Your task to perform on an android device: turn pop-ups off in chrome Image 0: 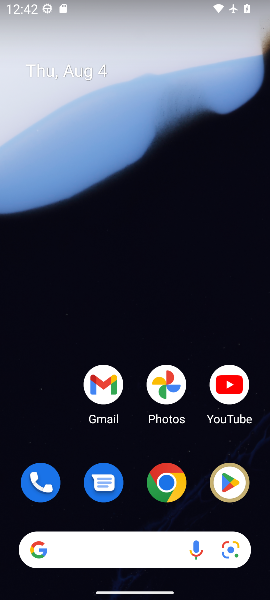
Step 0: click (158, 485)
Your task to perform on an android device: turn pop-ups off in chrome Image 1: 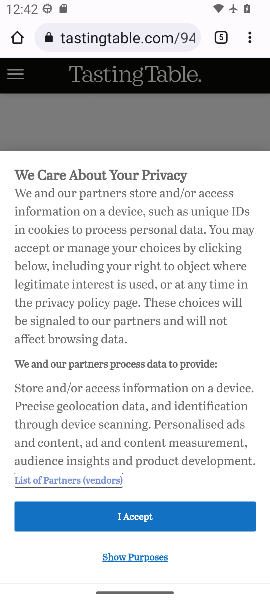
Step 1: click (244, 41)
Your task to perform on an android device: turn pop-ups off in chrome Image 2: 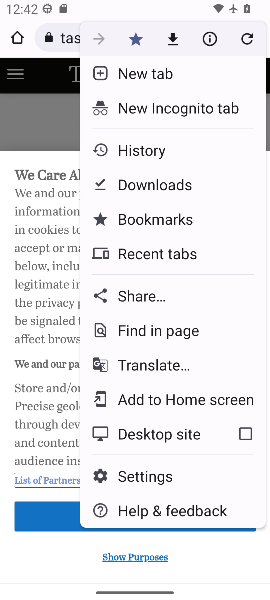
Step 2: click (157, 482)
Your task to perform on an android device: turn pop-ups off in chrome Image 3: 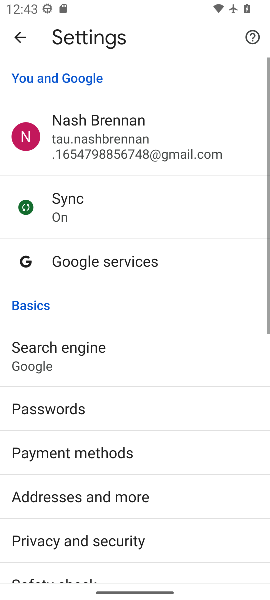
Step 3: drag from (130, 528) to (139, 211)
Your task to perform on an android device: turn pop-ups off in chrome Image 4: 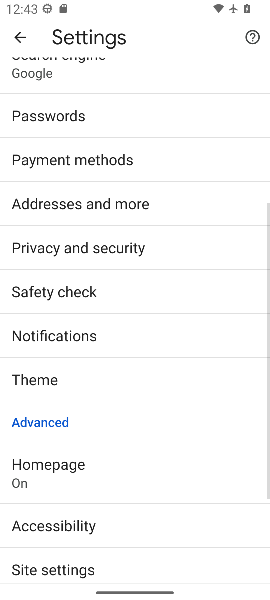
Step 4: click (87, 561)
Your task to perform on an android device: turn pop-ups off in chrome Image 5: 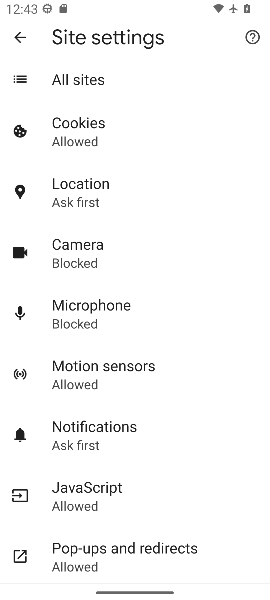
Step 5: click (109, 548)
Your task to perform on an android device: turn pop-ups off in chrome Image 6: 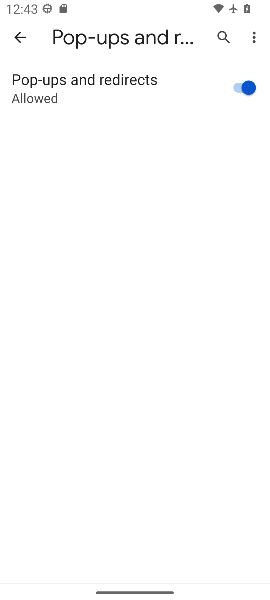
Step 6: click (232, 92)
Your task to perform on an android device: turn pop-ups off in chrome Image 7: 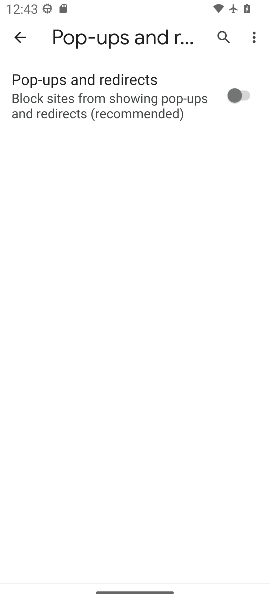
Step 7: task complete